Your task to perform on an android device: turn pop-ups on in chrome Image 0: 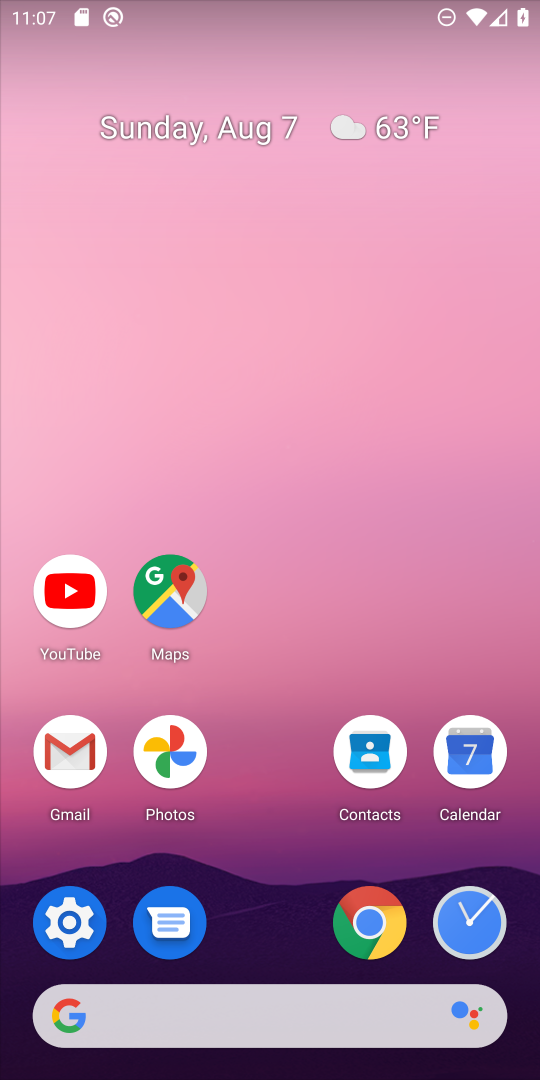
Step 0: click (377, 929)
Your task to perform on an android device: turn pop-ups on in chrome Image 1: 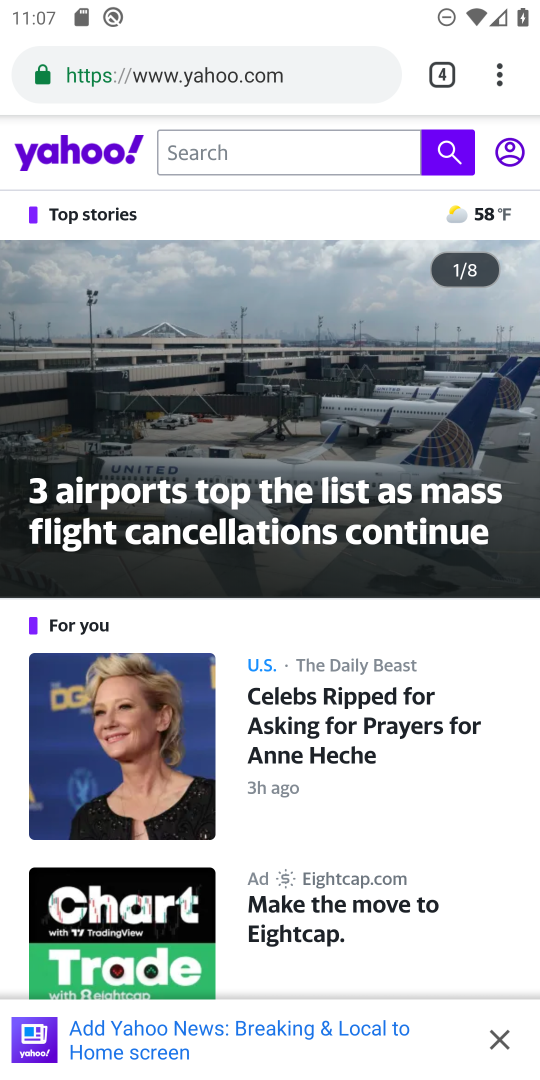
Step 1: click (503, 62)
Your task to perform on an android device: turn pop-ups on in chrome Image 2: 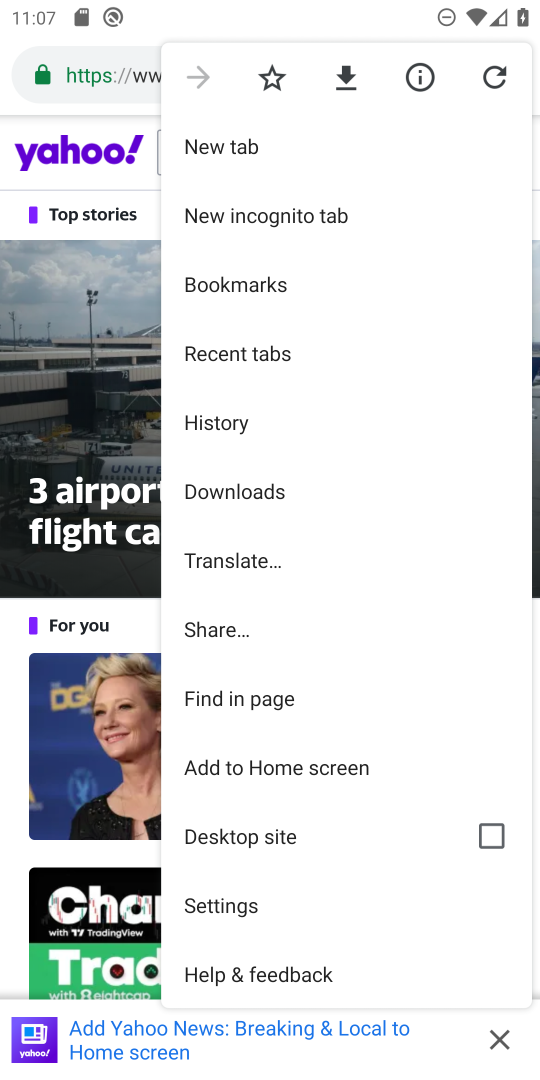
Step 2: click (239, 907)
Your task to perform on an android device: turn pop-ups on in chrome Image 3: 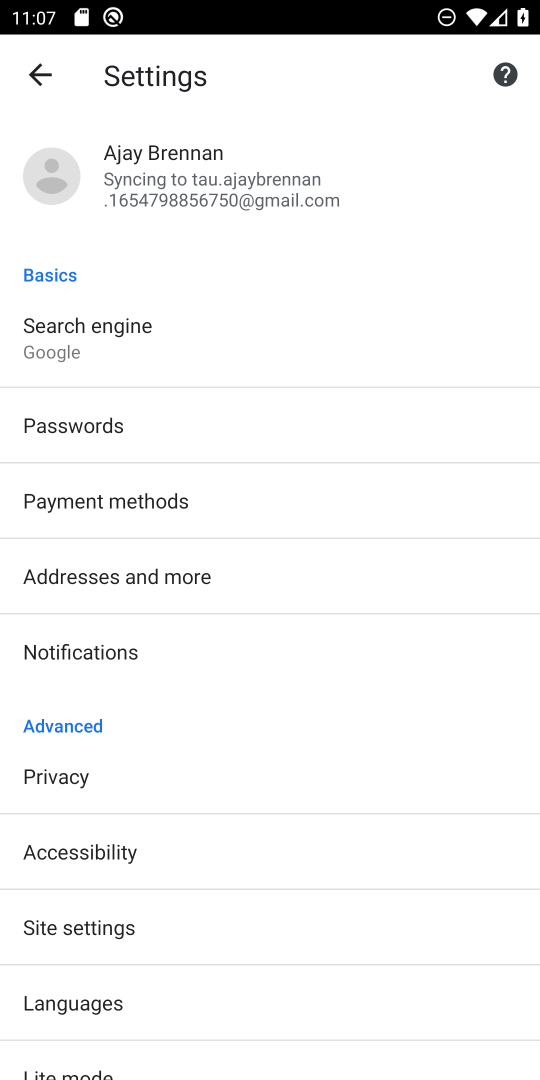
Step 3: drag from (315, 911) to (315, 414)
Your task to perform on an android device: turn pop-ups on in chrome Image 4: 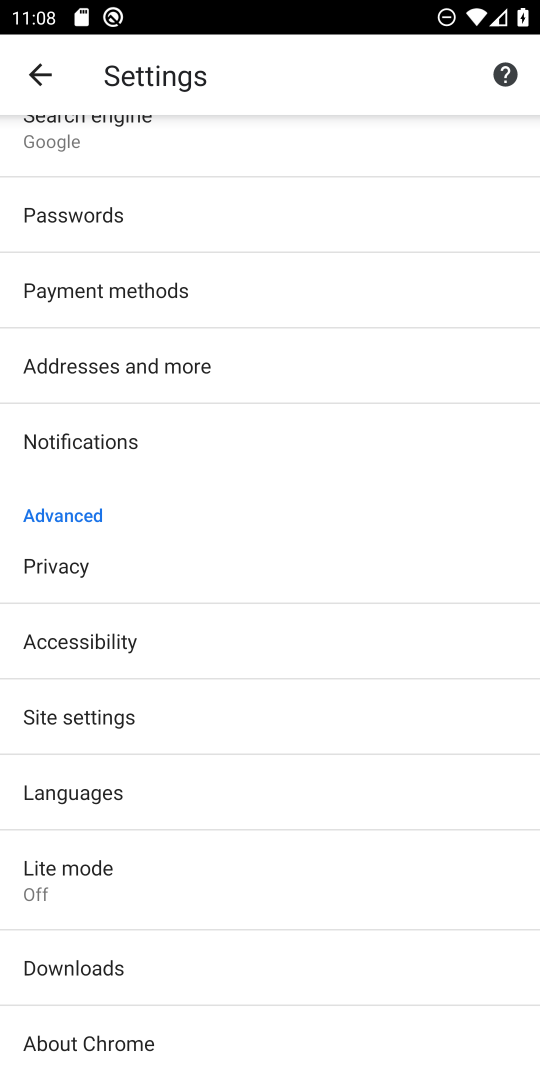
Step 4: click (109, 716)
Your task to perform on an android device: turn pop-ups on in chrome Image 5: 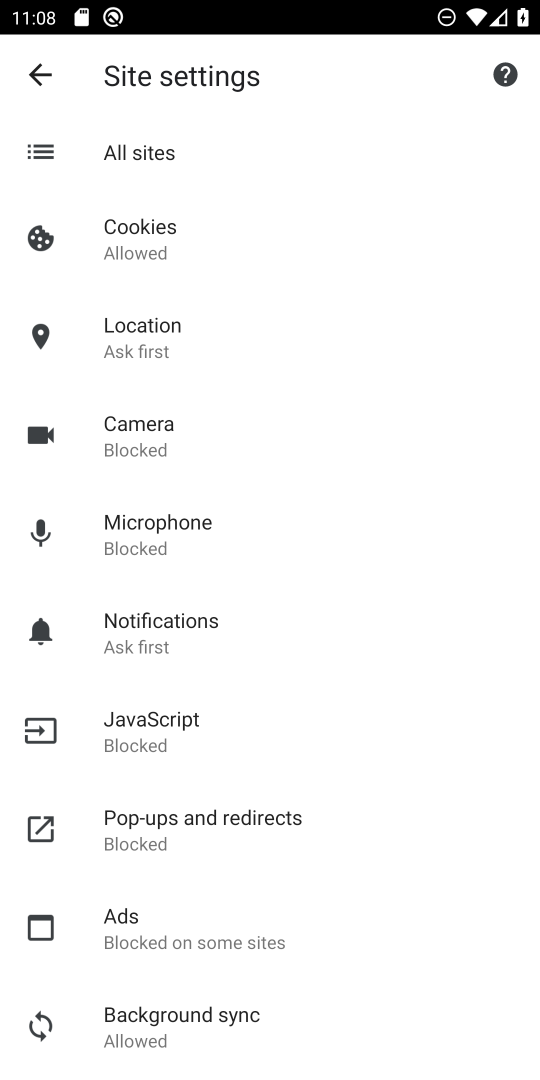
Step 5: click (181, 820)
Your task to perform on an android device: turn pop-ups on in chrome Image 6: 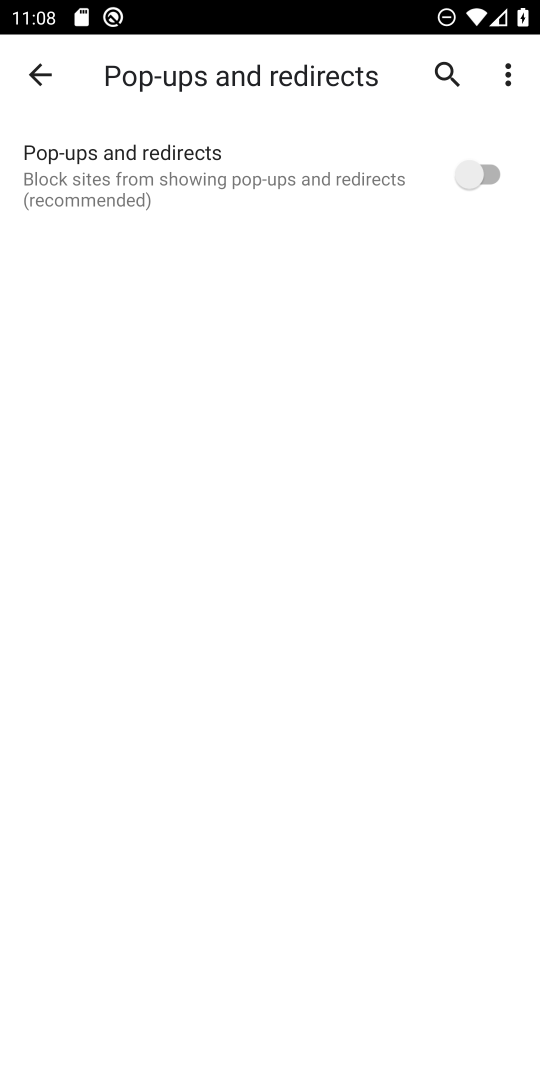
Step 6: click (468, 170)
Your task to perform on an android device: turn pop-ups on in chrome Image 7: 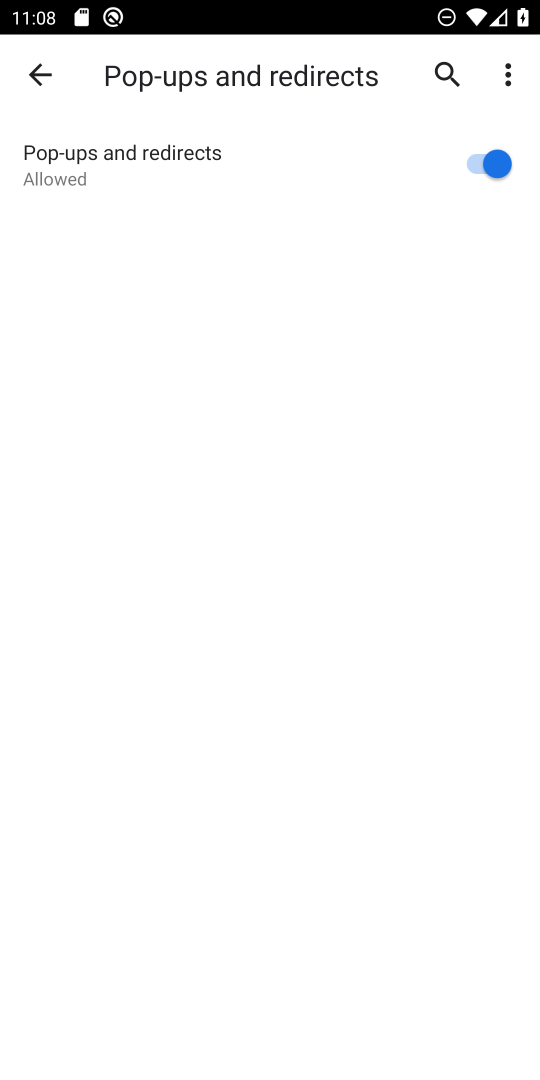
Step 7: task complete